Your task to perform on an android device: Search for seafood restaurants on Google Maps Image 0: 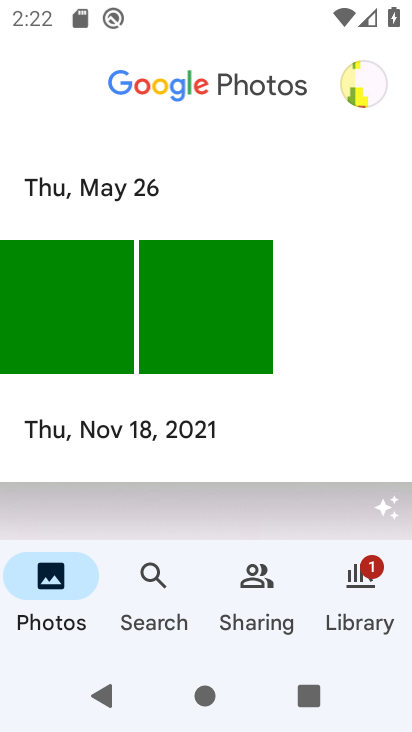
Step 0: press home button
Your task to perform on an android device: Search for seafood restaurants on Google Maps Image 1: 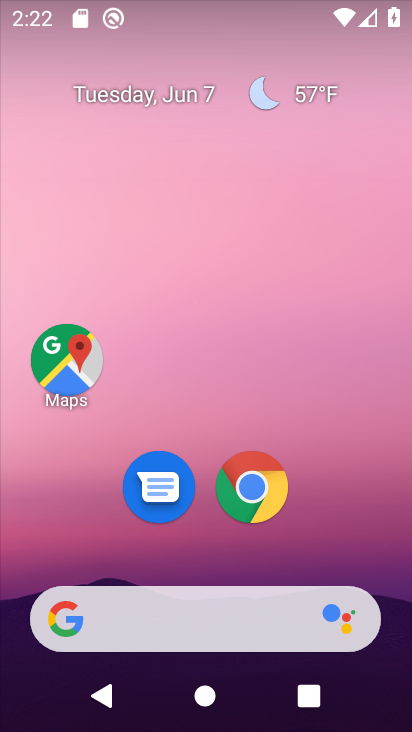
Step 1: click (43, 356)
Your task to perform on an android device: Search for seafood restaurants on Google Maps Image 2: 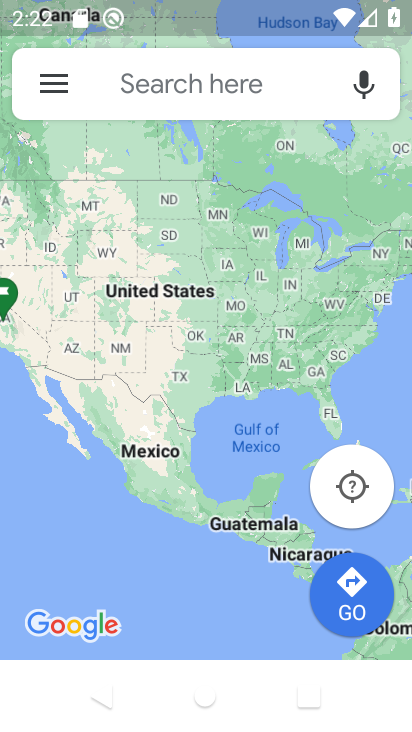
Step 2: click (207, 92)
Your task to perform on an android device: Search for seafood restaurants on Google Maps Image 3: 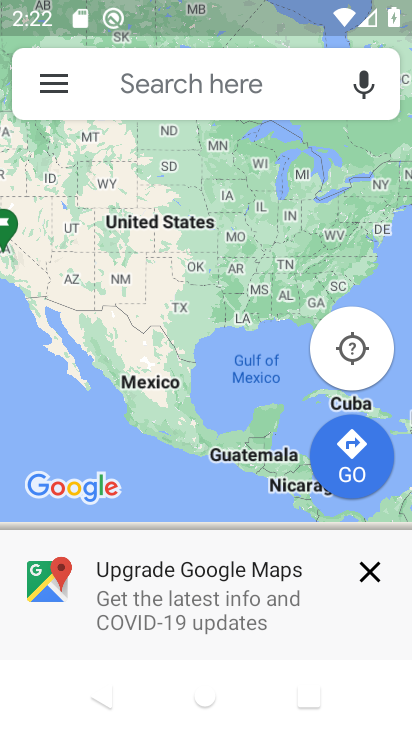
Step 3: click (173, 100)
Your task to perform on an android device: Search for seafood restaurants on Google Maps Image 4: 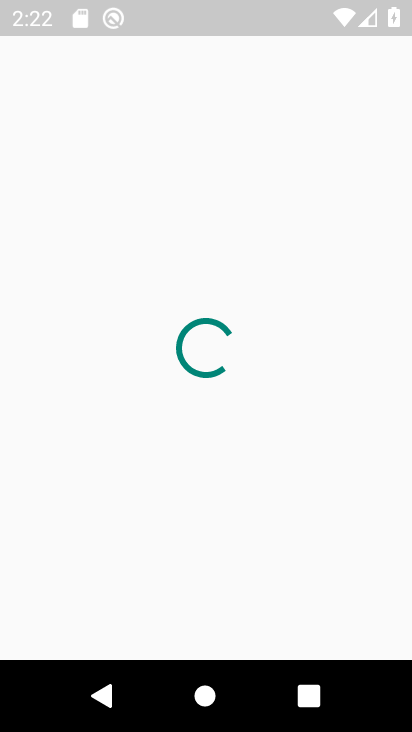
Step 4: drag from (315, 446) to (361, 433)
Your task to perform on an android device: Search for seafood restaurants on Google Maps Image 5: 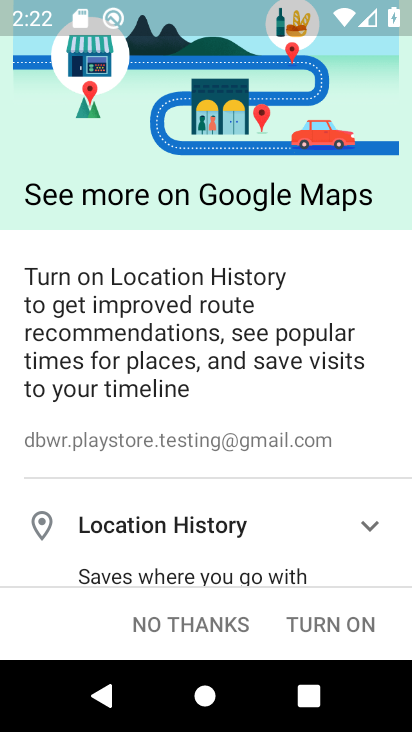
Step 5: click (342, 616)
Your task to perform on an android device: Search for seafood restaurants on Google Maps Image 6: 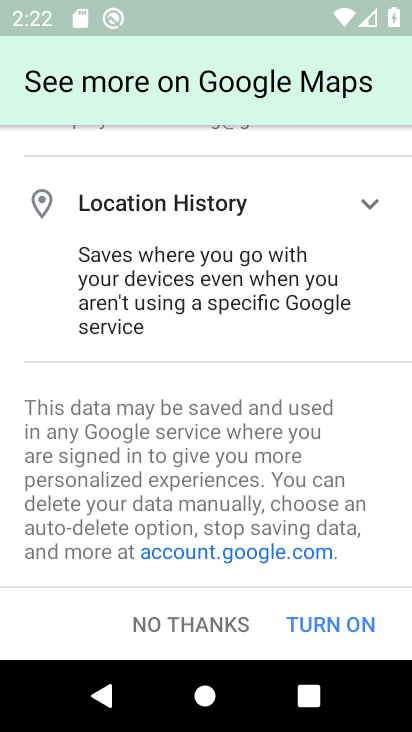
Step 6: click (344, 611)
Your task to perform on an android device: Search for seafood restaurants on Google Maps Image 7: 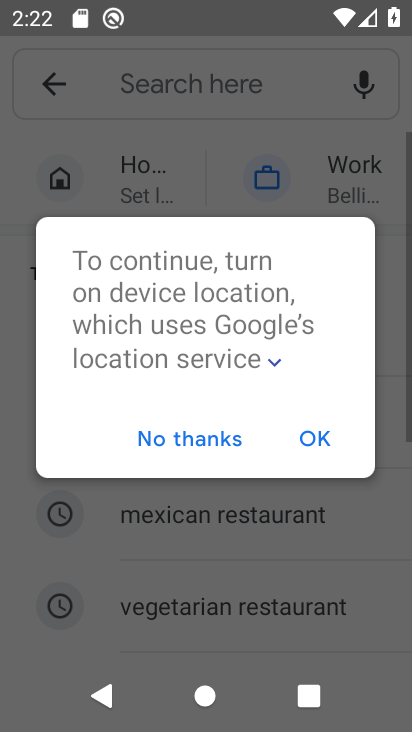
Step 7: click (311, 439)
Your task to perform on an android device: Search for seafood restaurants on Google Maps Image 8: 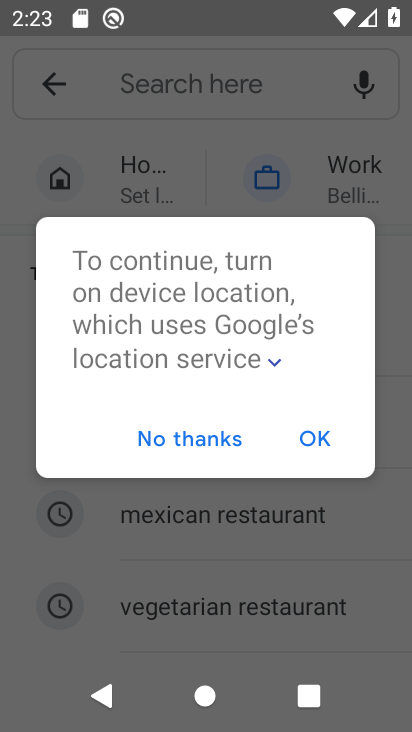
Step 8: click (303, 447)
Your task to perform on an android device: Search for seafood restaurants on Google Maps Image 9: 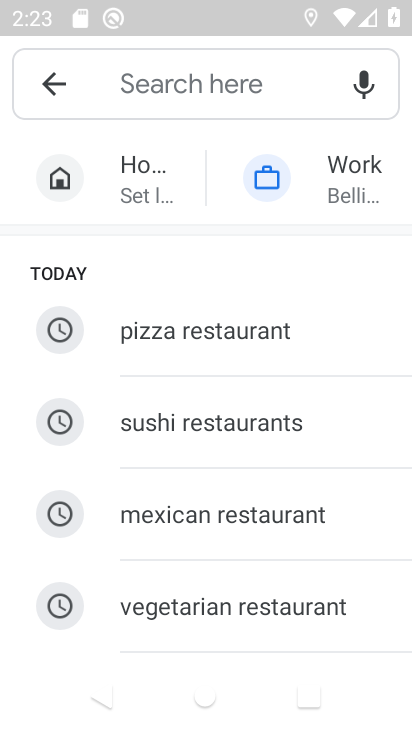
Step 9: drag from (242, 543) to (239, 182)
Your task to perform on an android device: Search for seafood restaurants on Google Maps Image 10: 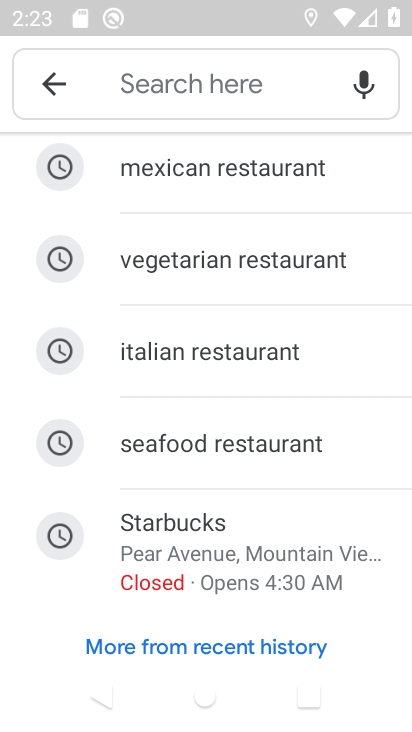
Step 10: click (218, 461)
Your task to perform on an android device: Search for seafood restaurants on Google Maps Image 11: 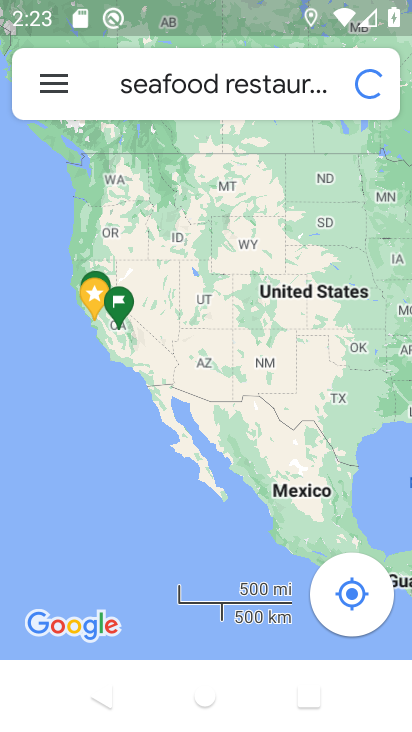
Step 11: task complete